Your task to perform on an android device: open app "Microsoft Outlook" Image 0: 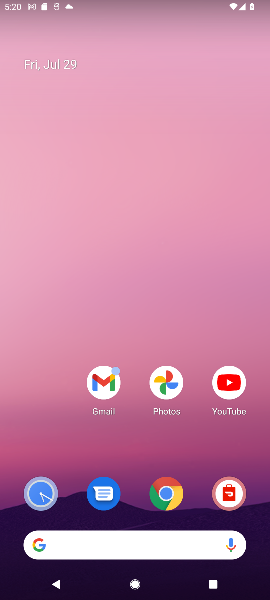
Step 0: drag from (157, 598) to (164, 42)
Your task to perform on an android device: open app "Microsoft Outlook" Image 1: 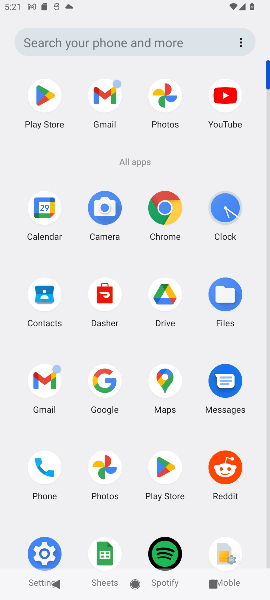
Step 1: click (47, 90)
Your task to perform on an android device: open app "Microsoft Outlook" Image 2: 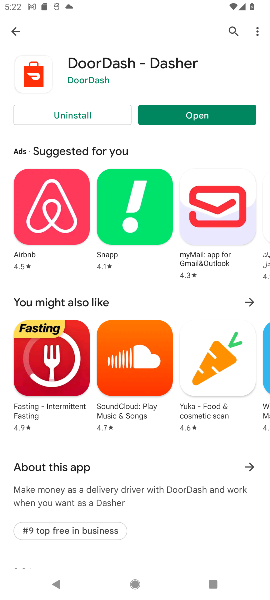
Step 2: click (202, 114)
Your task to perform on an android device: open app "Microsoft Outlook" Image 3: 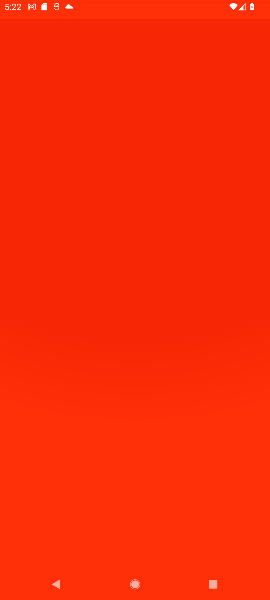
Step 3: task complete